Your task to perform on an android device: turn off translation in the chrome app Image 0: 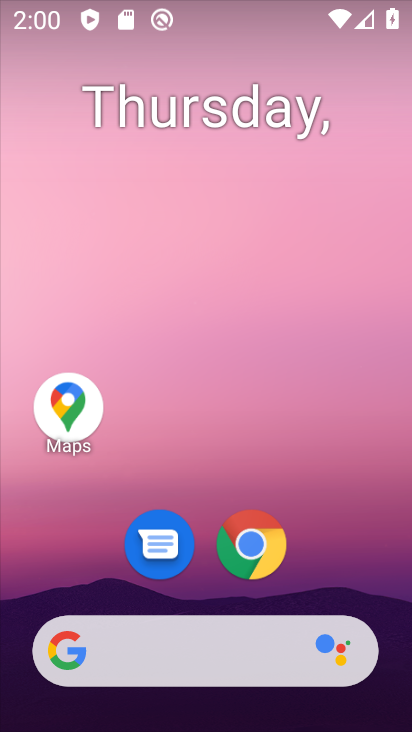
Step 0: click (243, 558)
Your task to perform on an android device: turn off translation in the chrome app Image 1: 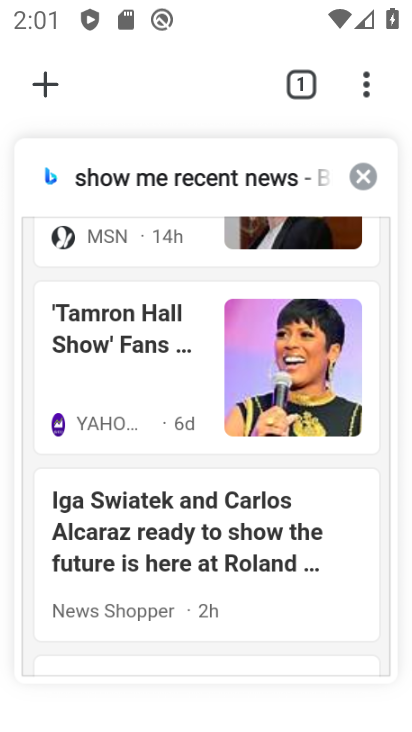
Step 1: click (368, 81)
Your task to perform on an android device: turn off translation in the chrome app Image 2: 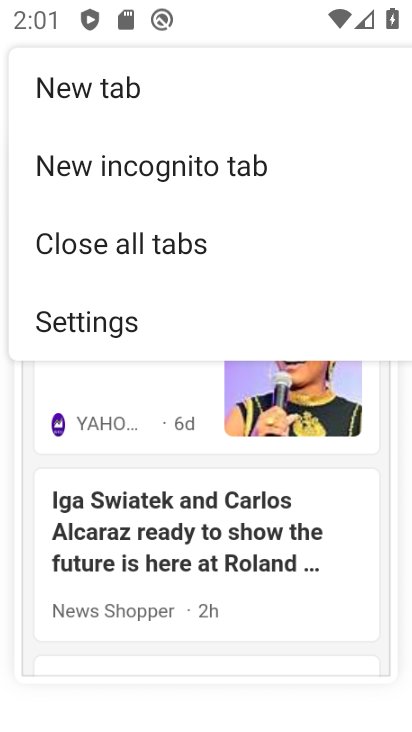
Step 2: click (91, 324)
Your task to perform on an android device: turn off translation in the chrome app Image 3: 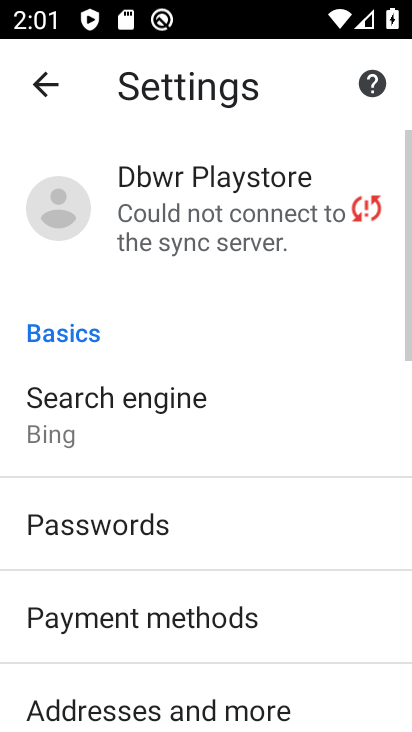
Step 3: drag from (178, 630) to (174, 288)
Your task to perform on an android device: turn off translation in the chrome app Image 4: 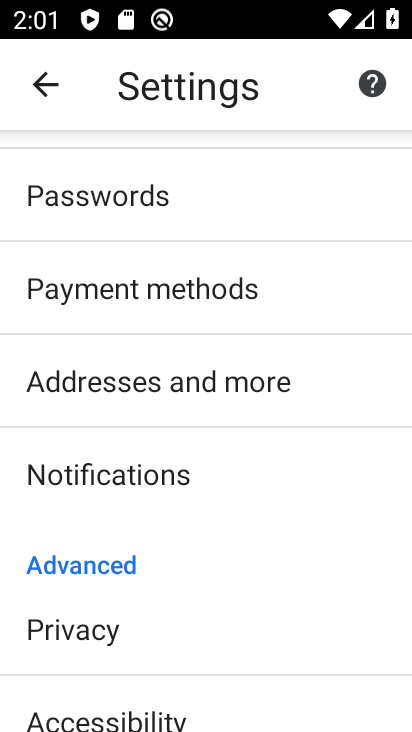
Step 4: drag from (149, 651) to (132, 412)
Your task to perform on an android device: turn off translation in the chrome app Image 5: 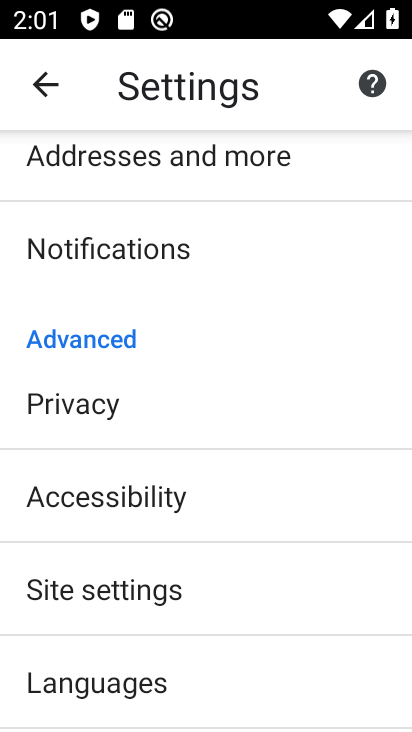
Step 5: click (125, 684)
Your task to perform on an android device: turn off translation in the chrome app Image 6: 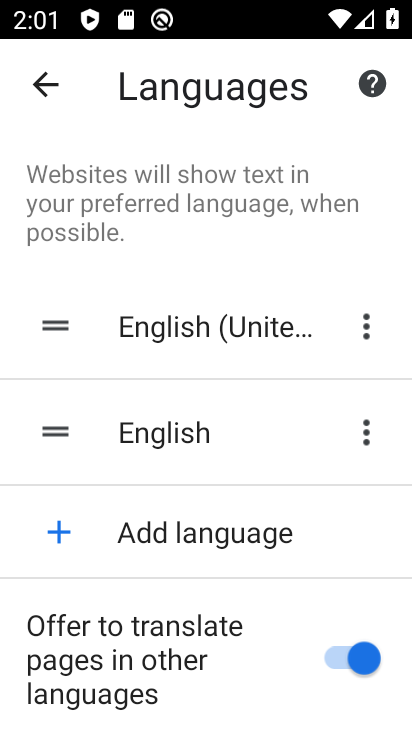
Step 6: click (358, 654)
Your task to perform on an android device: turn off translation in the chrome app Image 7: 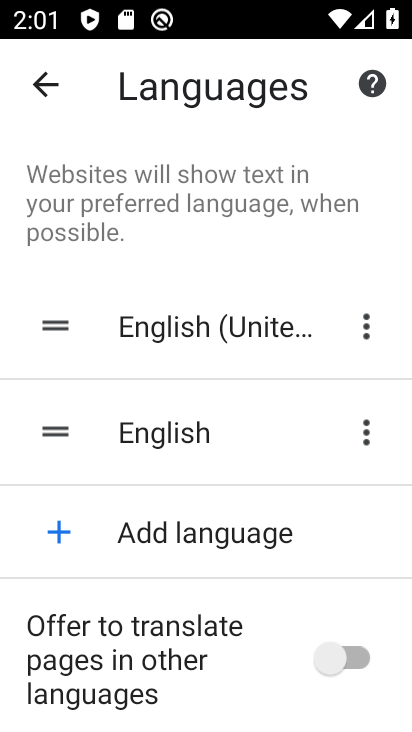
Step 7: task complete